Your task to perform on an android device: change the clock style Image 0: 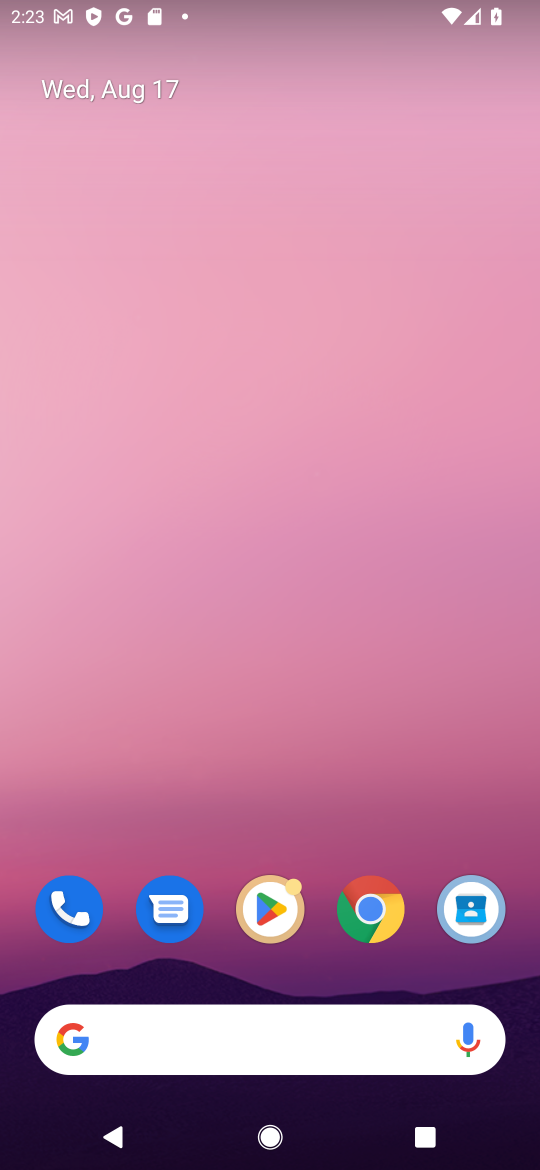
Step 0: drag from (250, 665) to (383, 152)
Your task to perform on an android device: change the clock style Image 1: 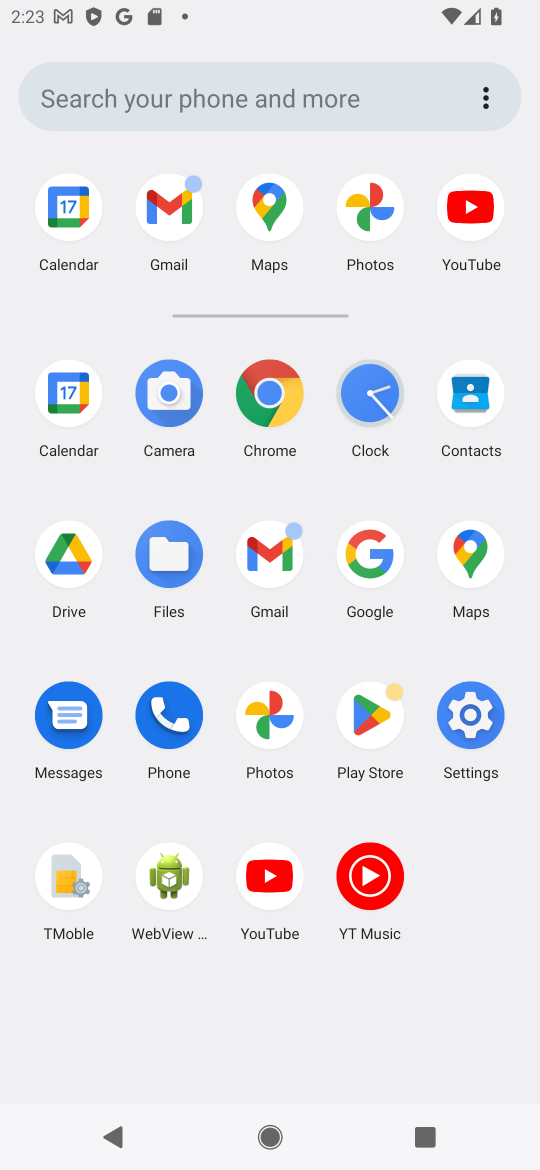
Step 1: task complete